Your task to perform on an android device: What is the recent news? Image 0: 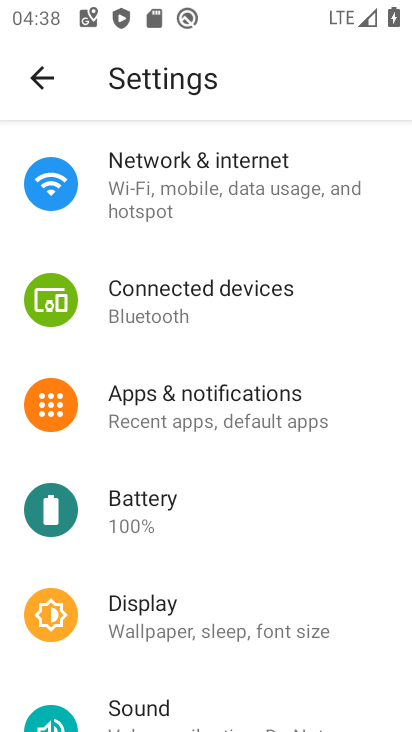
Step 0: press back button
Your task to perform on an android device: What is the recent news? Image 1: 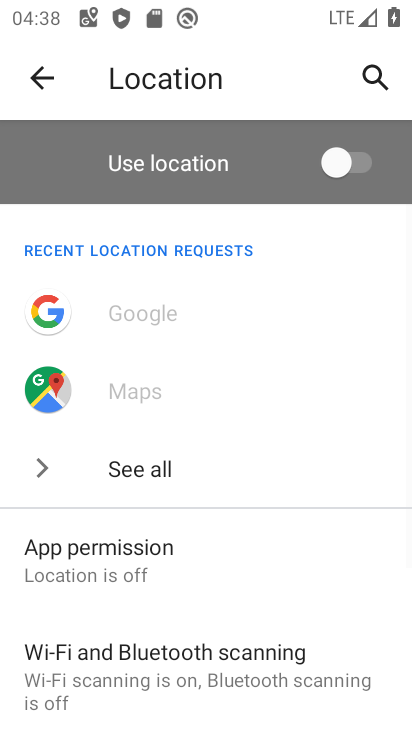
Step 1: press back button
Your task to perform on an android device: What is the recent news? Image 2: 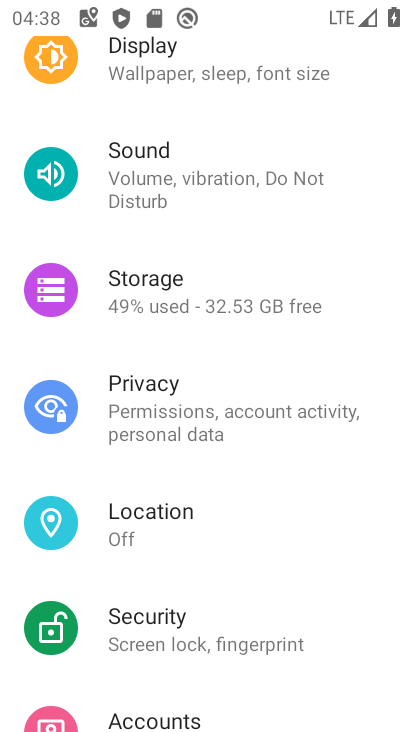
Step 2: press back button
Your task to perform on an android device: What is the recent news? Image 3: 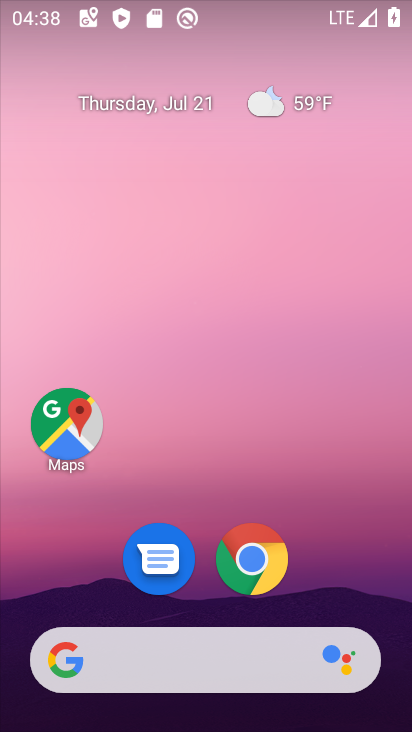
Step 3: click (181, 658)
Your task to perform on an android device: What is the recent news? Image 4: 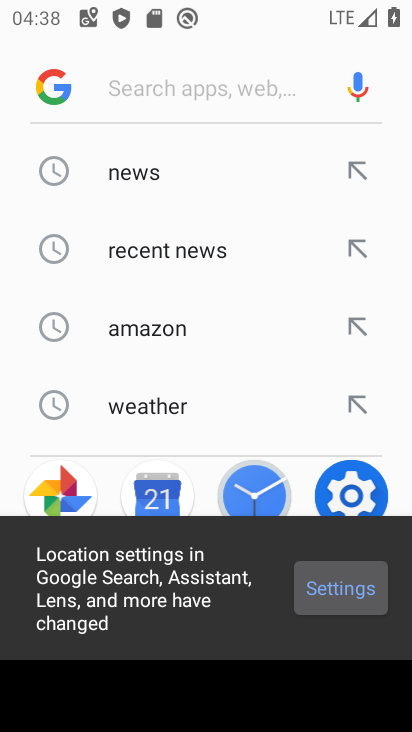
Step 4: click (167, 252)
Your task to perform on an android device: What is the recent news? Image 5: 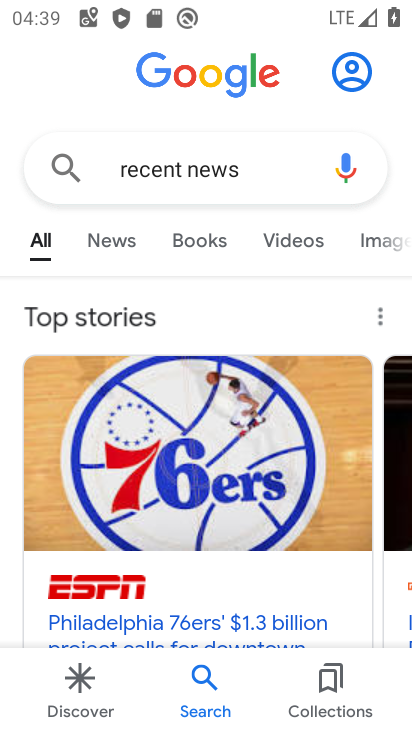
Step 5: task complete